Your task to perform on an android device: Show me the alarms in the clock app Image 0: 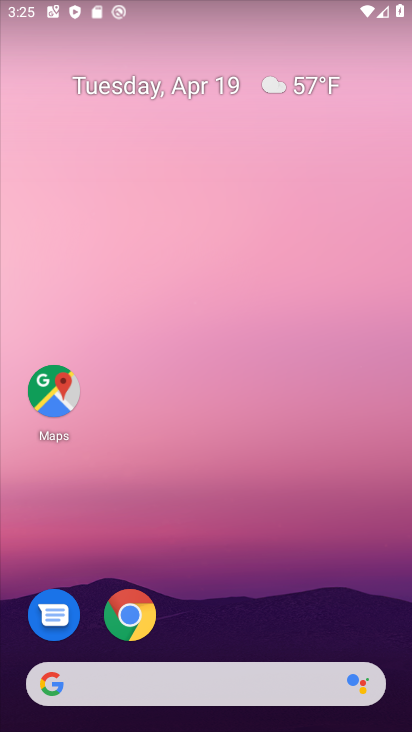
Step 0: drag from (224, 627) to (231, 169)
Your task to perform on an android device: Show me the alarms in the clock app Image 1: 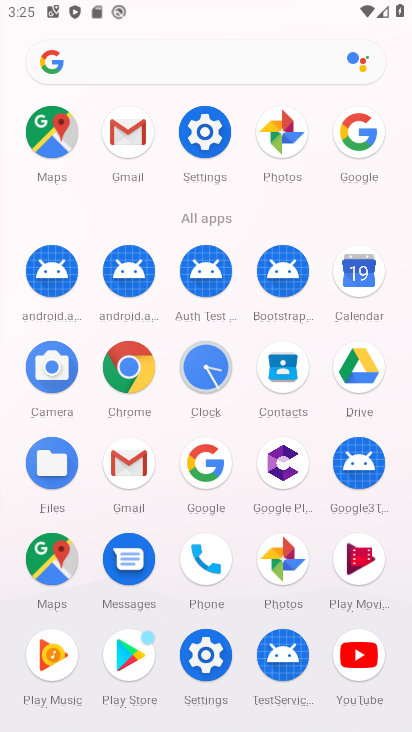
Step 1: click (200, 358)
Your task to perform on an android device: Show me the alarms in the clock app Image 2: 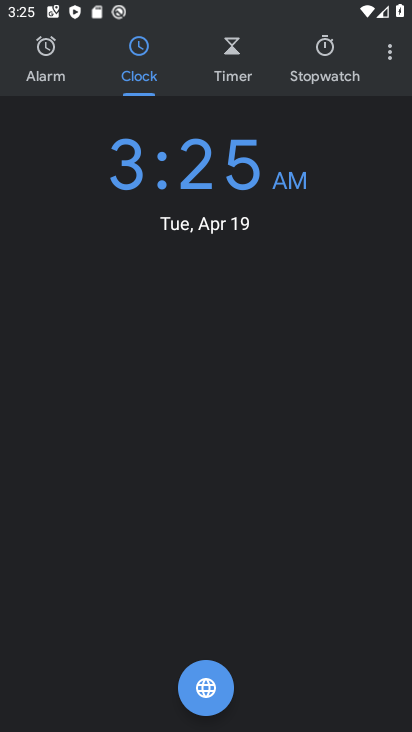
Step 2: click (45, 62)
Your task to perform on an android device: Show me the alarms in the clock app Image 3: 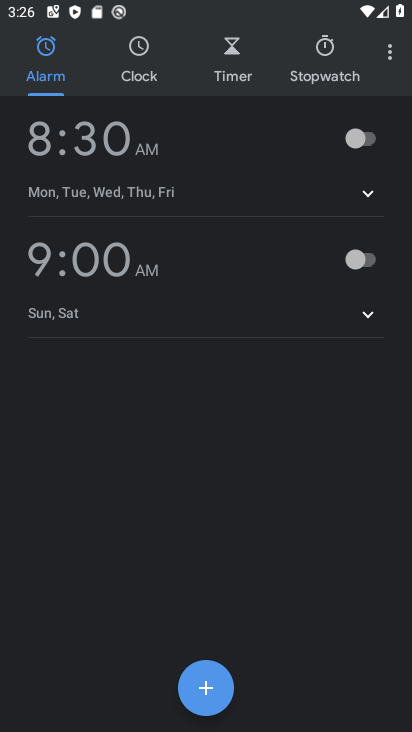
Step 3: task complete